Your task to perform on an android device: find which apps use the phone's location Image 0: 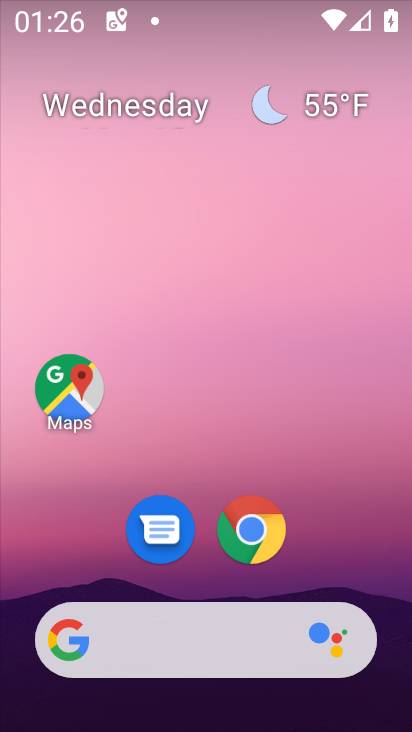
Step 0: drag from (199, 723) to (217, 72)
Your task to perform on an android device: find which apps use the phone's location Image 1: 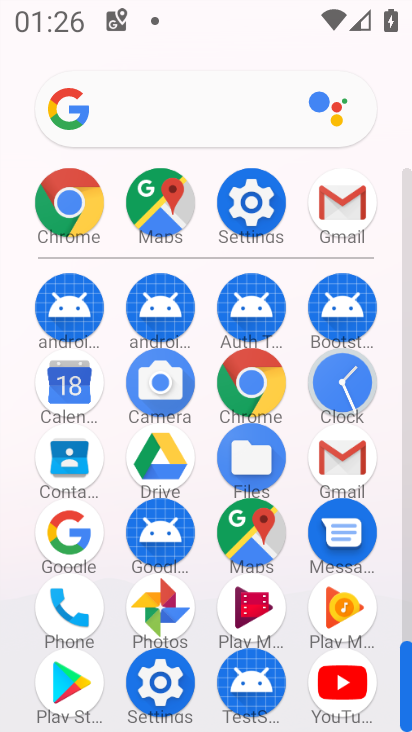
Step 1: click (251, 204)
Your task to perform on an android device: find which apps use the phone's location Image 2: 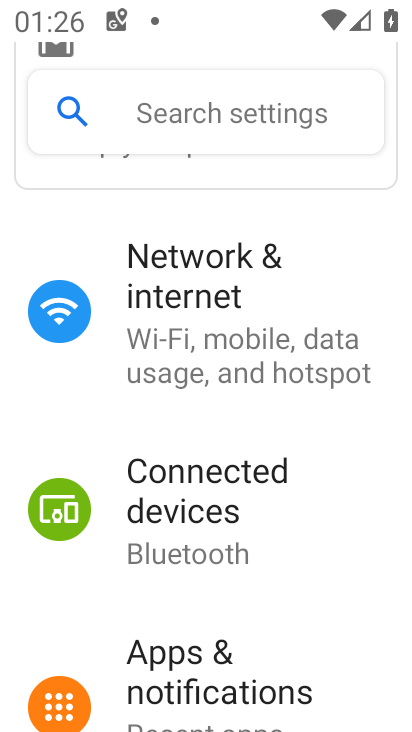
Step 2: drag from (222, 611) to (227, 323)
Your task to perform on an android device: find which apps use the phone's location Image 3: 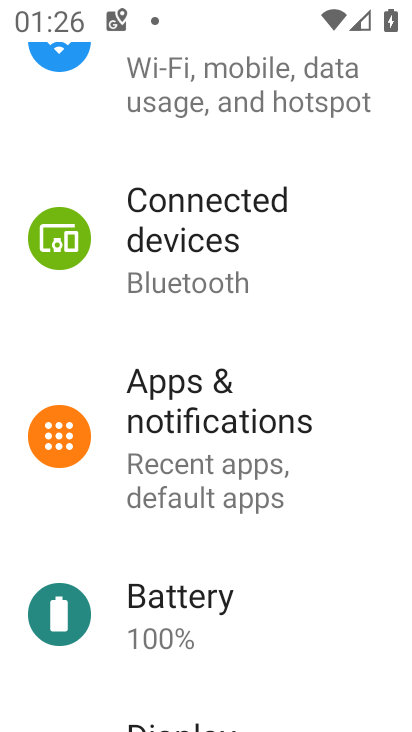
Step 3: drag from (230, 671) to (227, 271)
Your task to perform on an android device: find which apps use the phone's location Image 4: 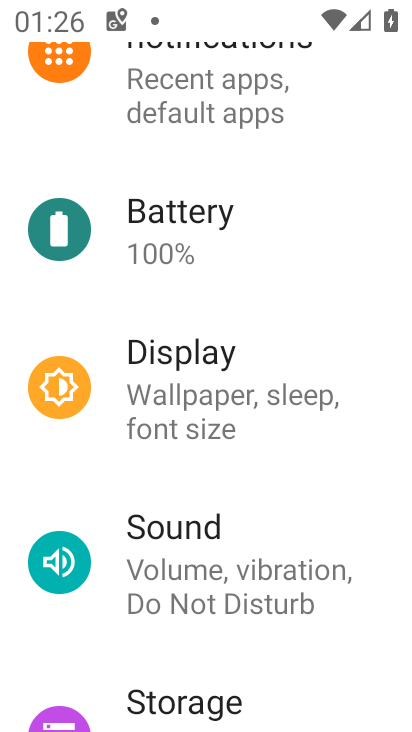
Step 4: drag from (221, 656) to (223, 288)
Your task to perform on an android device: find which apps use the phone's location Image 5: 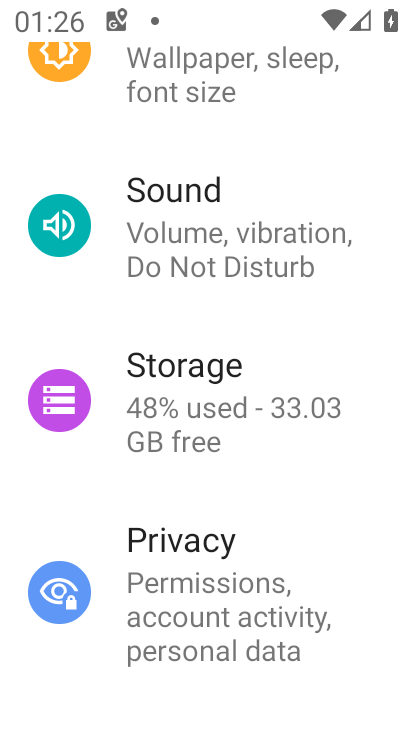
Step 5: drag from (240, 654) to (246, 267)
Your task to perform on an android device: find which apps use the phone's location Image 6: 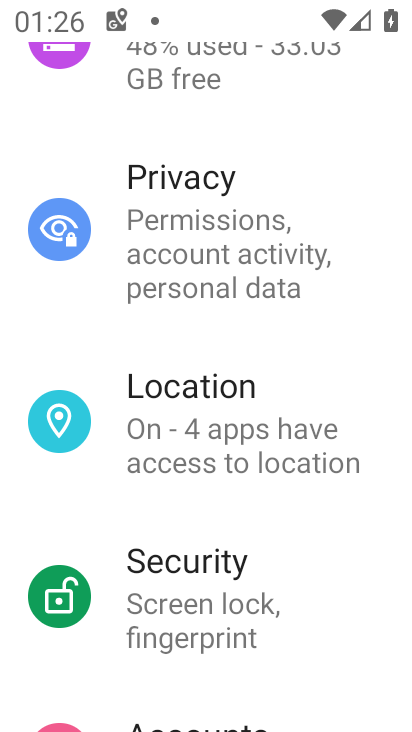
Step 6: click (203, 415)
Your task to perform on an android device: find which apps use the phone's location Image 7: 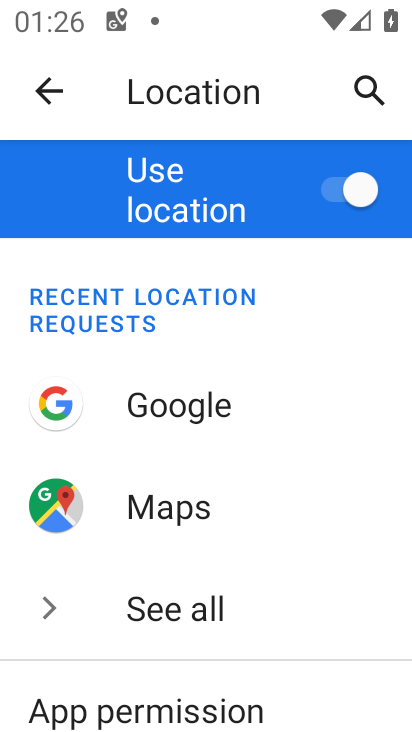
Step 7: drag from (192, 661) to (192, 361)
Your task to perform on an android device: find which apps use the phone's location Image 8: 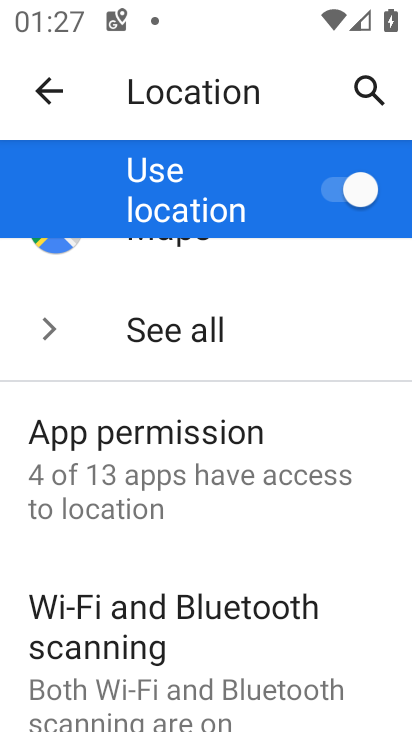
Step 8: click (177, 464)
Your task to perform on an android device: find which apps use the phone's location Image 9: 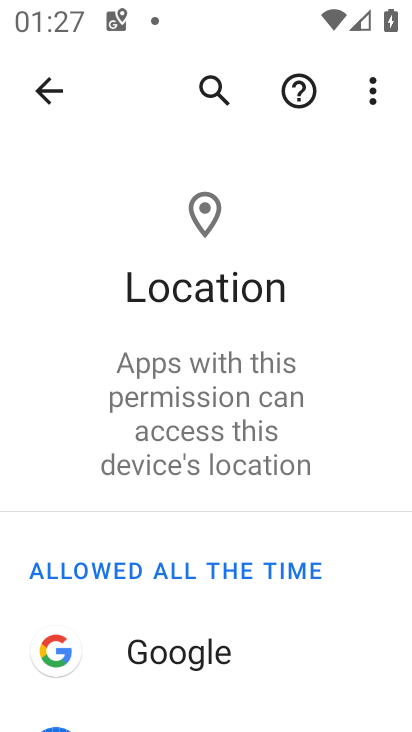
Step 9: task complete